Your task to perform on an android device: Go to calendar. Show me events next week Image 0: 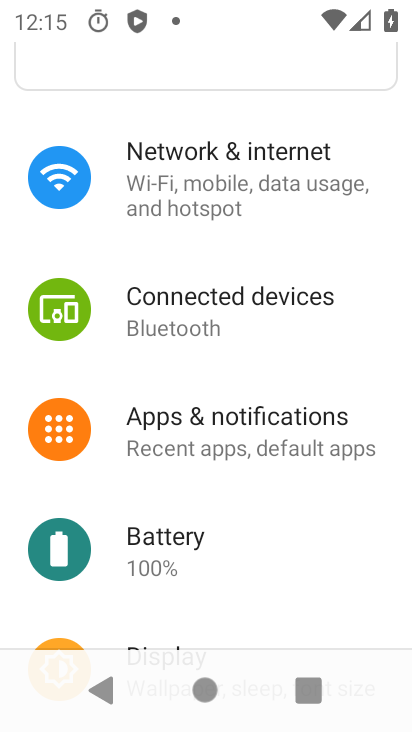
Step 0: press home button
Your task to perform on an android device: Go to calendar. Show me events next week Image 1: 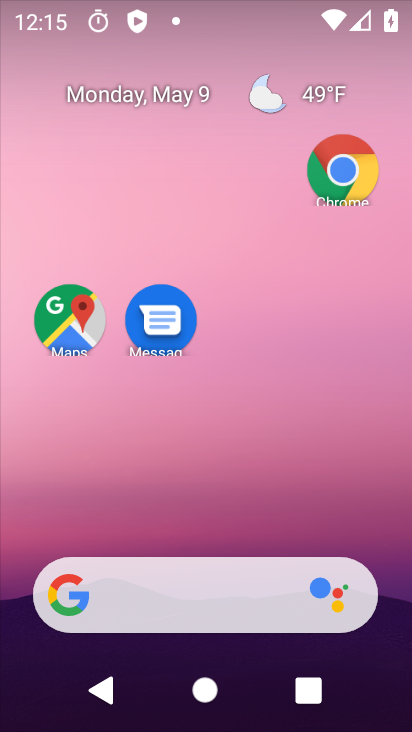
Step 1: drag from (214, 494) to (237, 144)
Your task to perform on an android device: Go to calendar. Show me events next week Image 2: 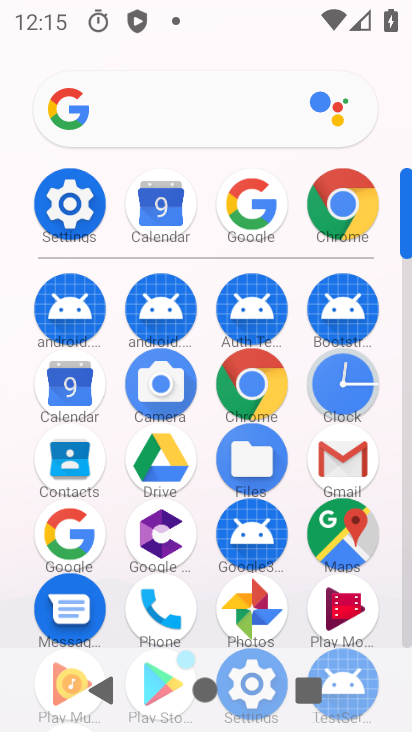
Step 2: press home button
Your task to perform on an android device: Go to calendar. Show me events next week Image 3: 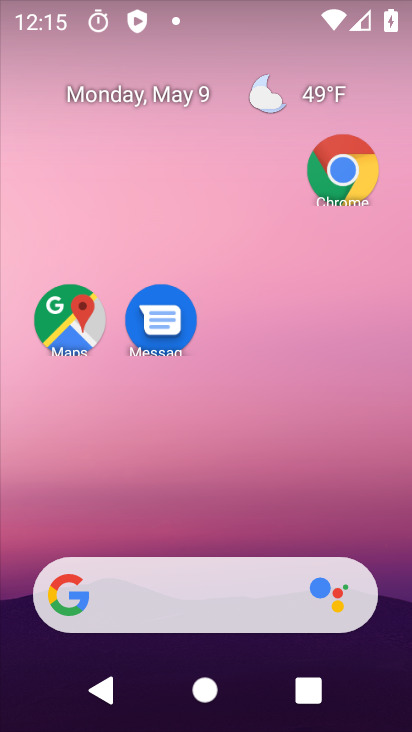
Step 3: click (171, 80)
Your task to perform on an android device: Go to calendar. Show me events next week Image 4: 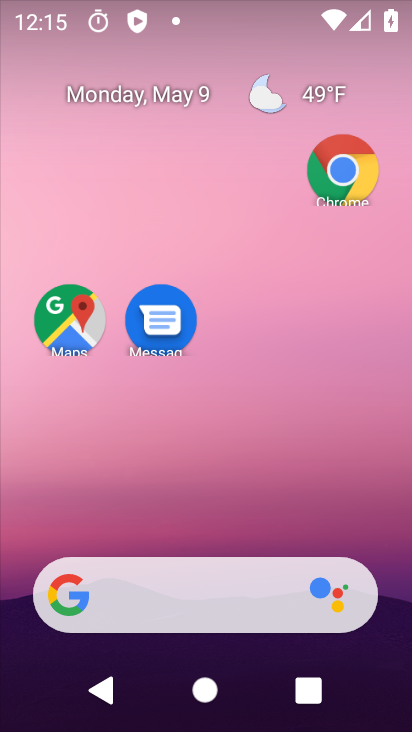
Step 4: click (183, 76)
Your task to perform on an android device: Go to calendar. Show me events next week Image 5: 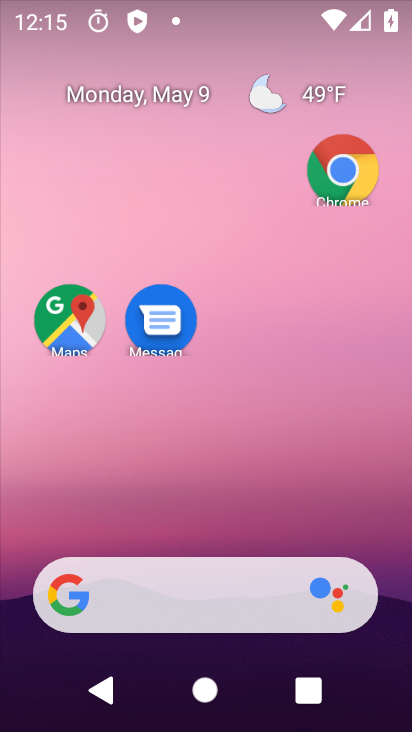
Step 5: click (173, 97)
Your task to perform on an android device: Go to calendar. Show me events next week Image 6: 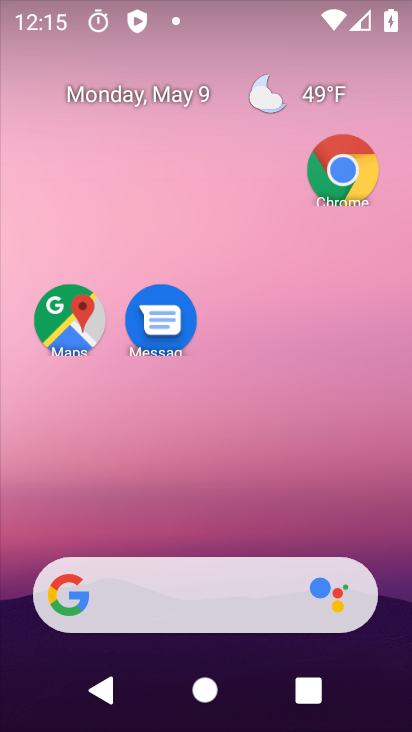
Step 6: click (188, 83)
Your task to perform on an android device: Go to calendar. Show me events next week Image 7: 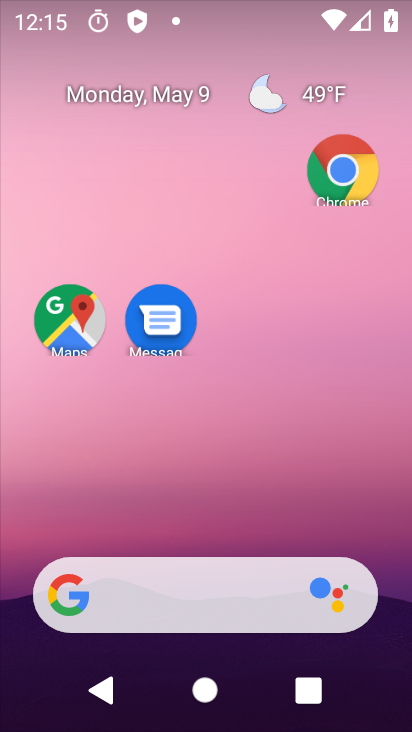
Step 7: click (188, 83)
Your task to perform on an android device: Go to calendar. Show me events next week Image 8: 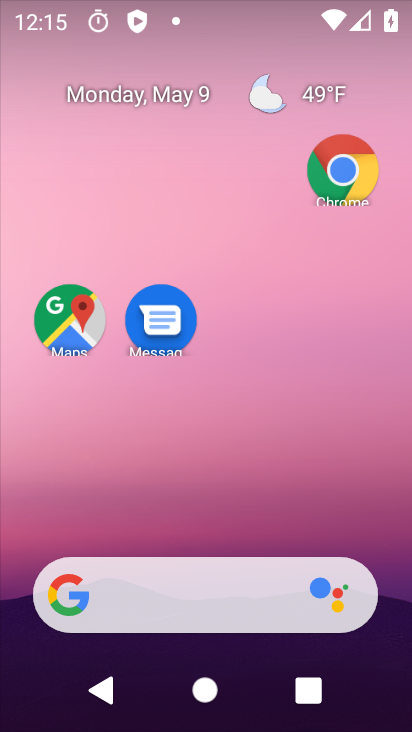
Step 8: click (188, 83)
Your task to perform on an android device: Go to calendar. Show me events next week Image 9: 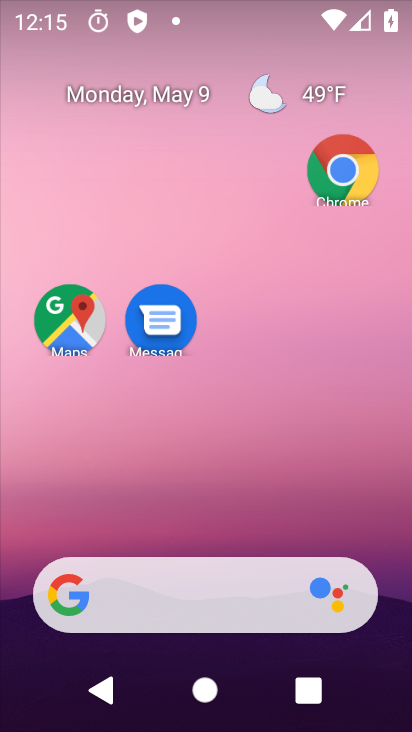
Step 9: click (168, 102)
Your task to perform on an android device: Go to calendar. Show me events next week Image 10: 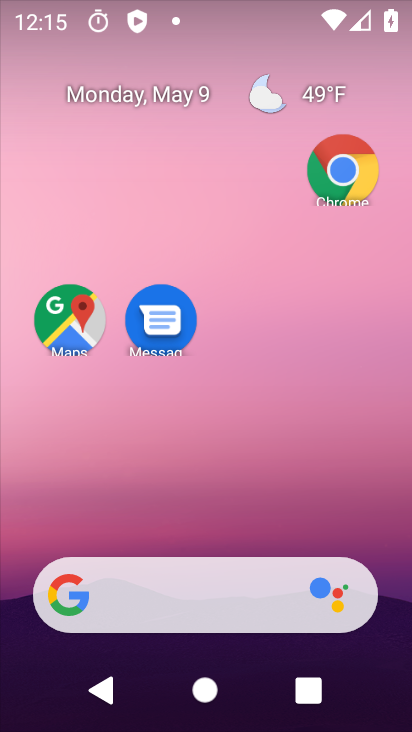
Step 10: click (168, 102)
Your task to perform on an android device: Go to calendar. Show me events next week Image 11: 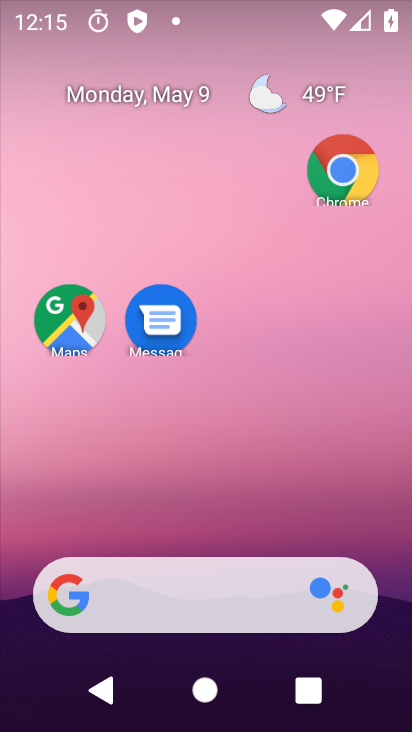
Step 11: click (168, 102)
Your task to perform on an android device: Go to calendar. Show me events next week Image 12: 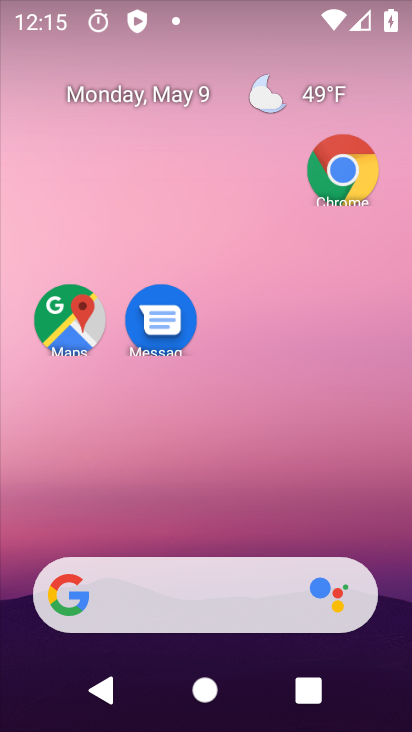
Step 12: click (166, 94)
Your task to perform on an android device: Go to calendar. Show me events next week Image 13: 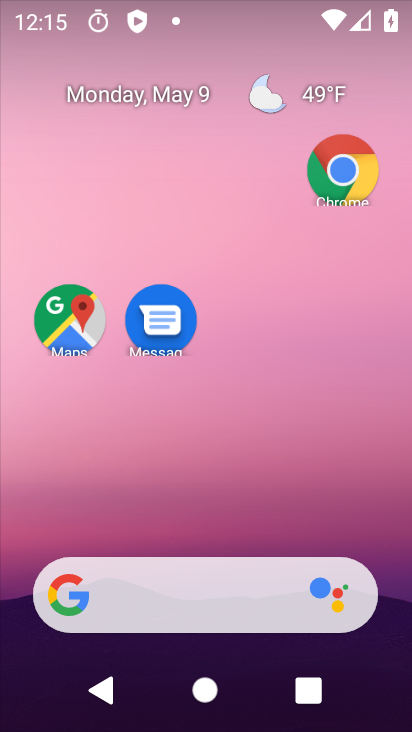
Step 13: click (166, 94)
Your task to perform on an android device: Go to calendar. Show me events next week Image 14: 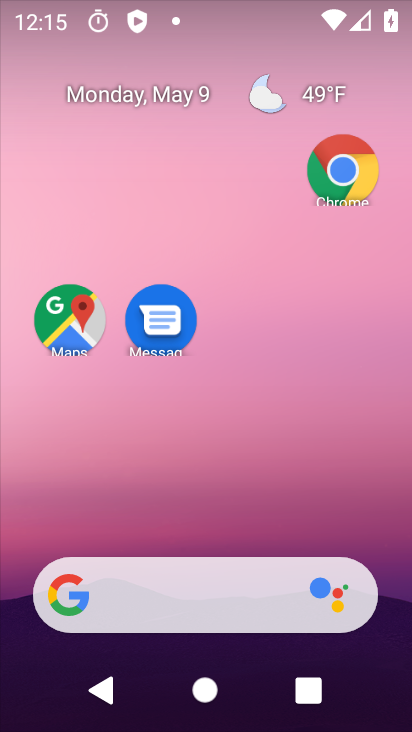
Step 14: click (166, 94)
Your task to perform on an android device: Go to calendar. Show me events next week Image 15: 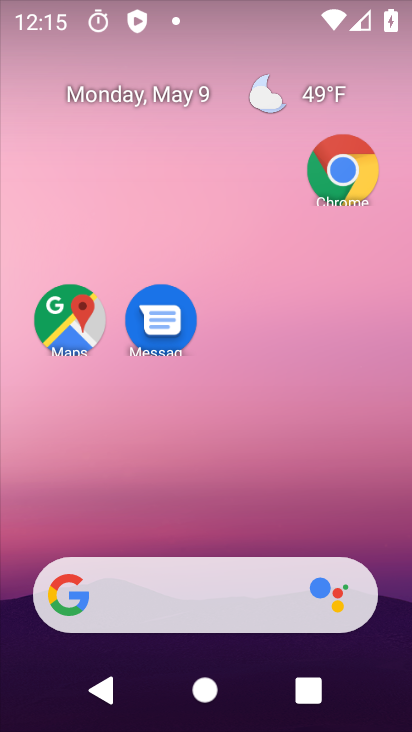
Step 15: click (166, 94)
Your task to perform on an android device: Go to calendar. Show me events next week Image 16: 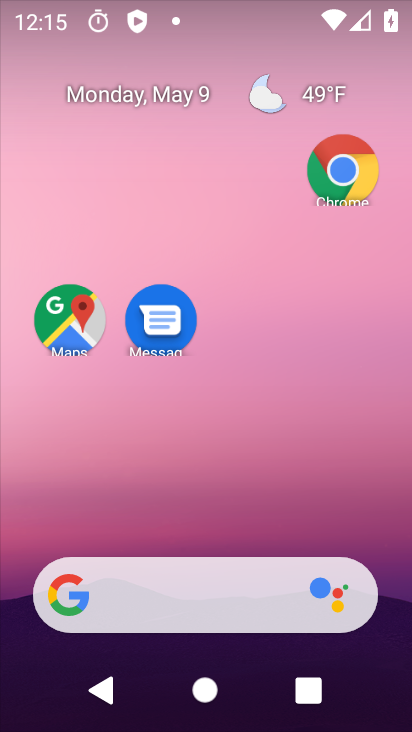
Step 16: click (166, 94)
Your task to perform on an android device: Go to calendar. Show me events next week Image 17: 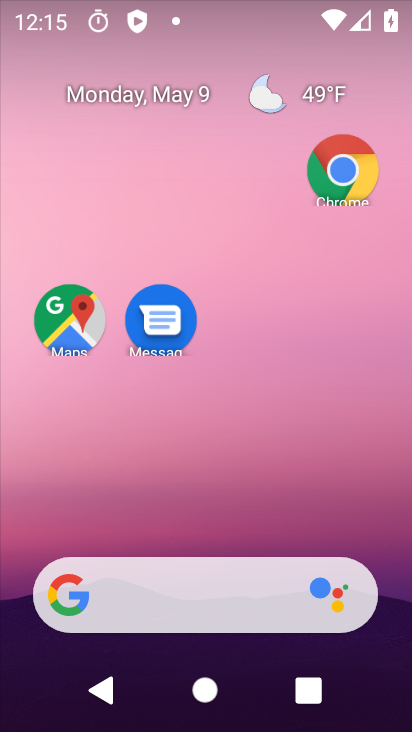
Step 17: click (166, 94)
Your task to perform on an android device: Go to calendar. Show me events next week Image 18: 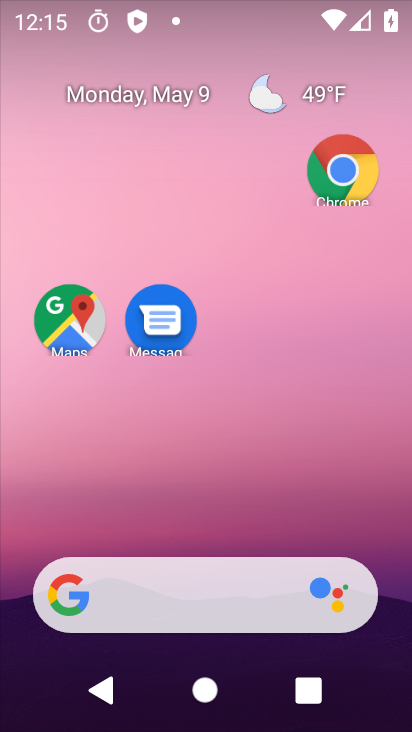
Step 18: click (166, 94)
Your task to perform on an android device: Go to calendar. Show me events next week Image 19: 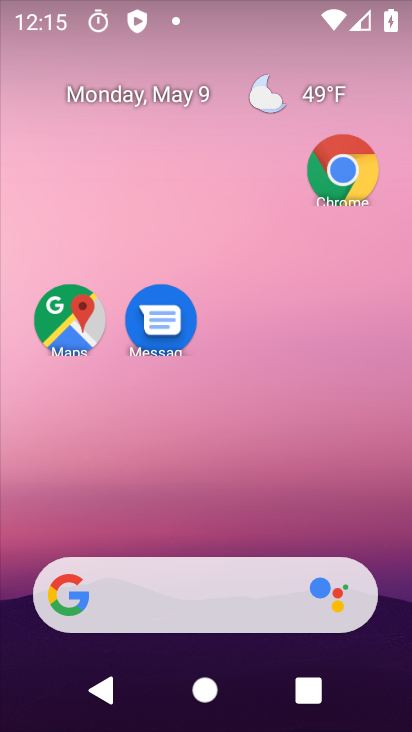
Step 19: click (166, 94)
Your task to perform on an android device: Go to calendar. Show me events next week Image 20: 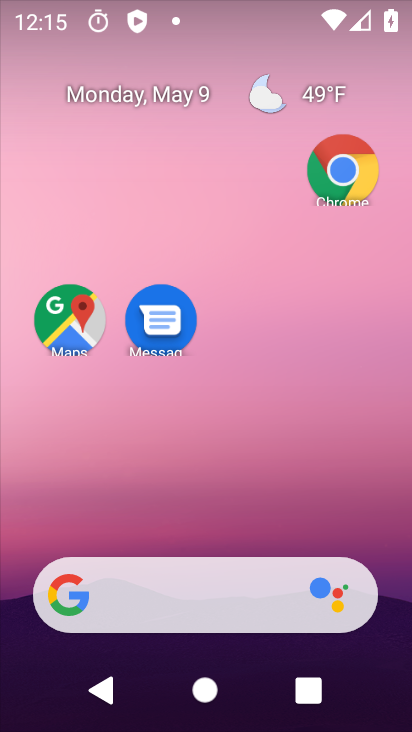
Step 20: click (166, 94)
Your task to perform on an android device: Go to calendar. Show me events next week Image 21: 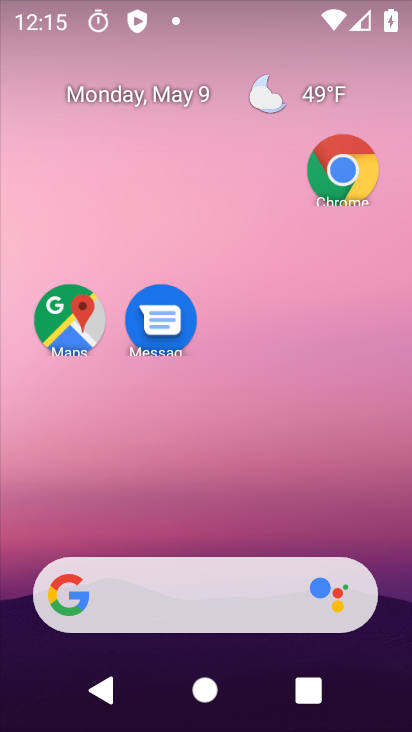
Step 21: click (166, 94)
Your task to perform on an android device: Go to calendar. Show me events next week Image 22: 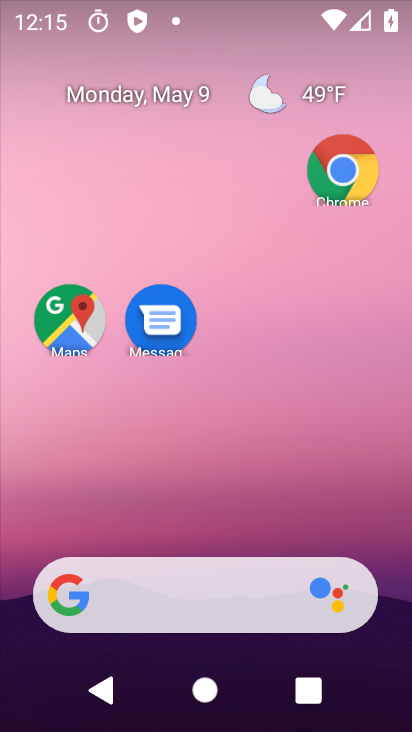
Step 22: click (166, 94)
Your task to perform on an android device: Go to calendar. Show me events next week Image 23: 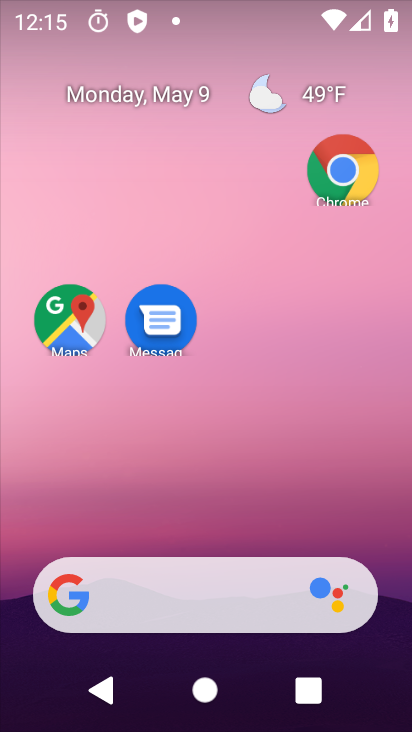
Step 23: click (159, 99)
Your task to perform on an android device: Go to calendar. Show me events next week Image 24: 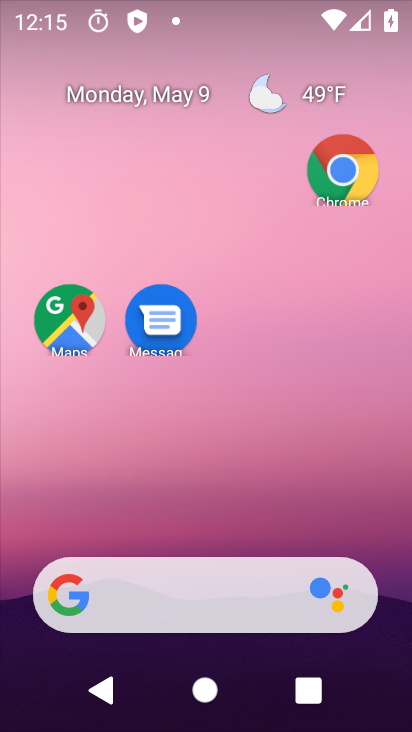
Step 24: click (159, 99)
Your task to perform on an android device: Go to calendar. Show me events next week Image 25: 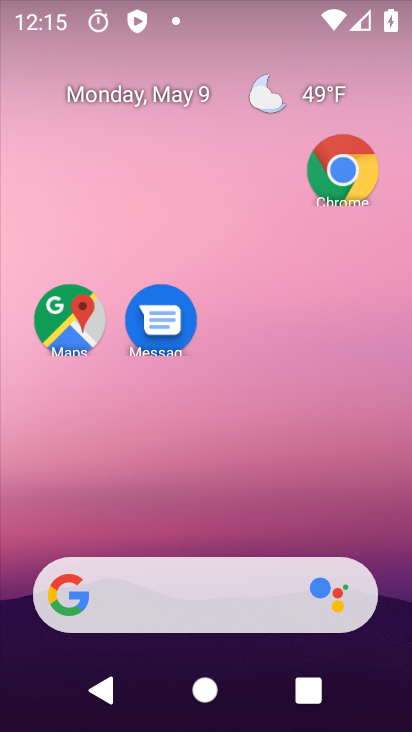
Step 25: click (159, 99)
Your task to perform on an android device: Go to calendar. Show me events next week Image 26: 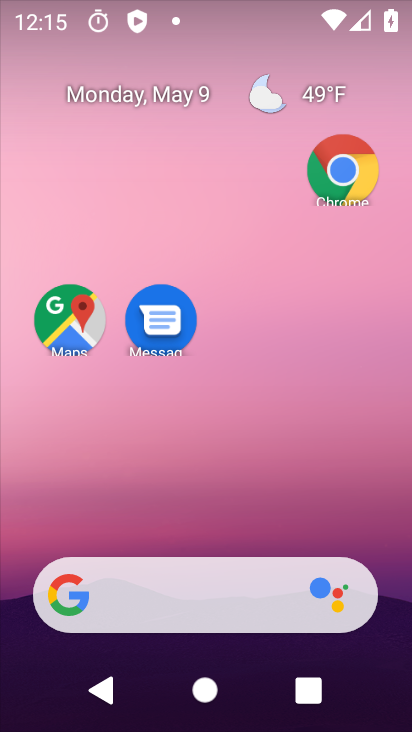
Step 26: click (159, 99)
Your task to perform on an android device: Go to calendar. Show me events next week Image 27: 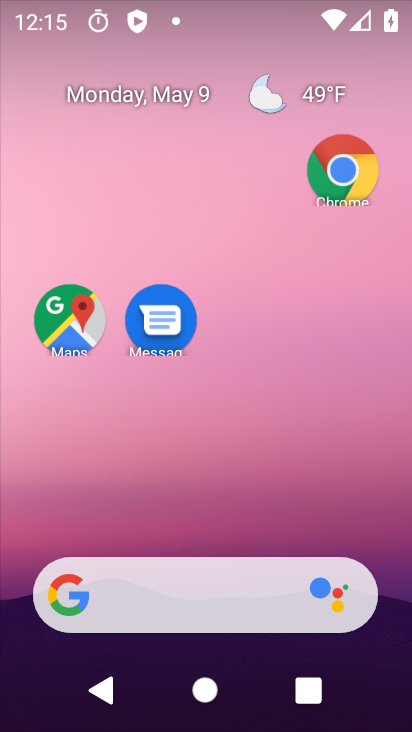
Step 27: click (159, 99)
Your task to perform on an android device: Go to calendar. Show me events next week Image 28: 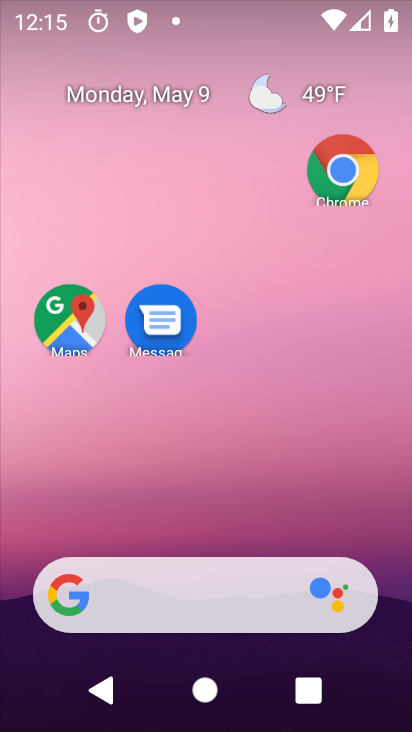
Step 28: click (159, 99)
Your task to perform on an android device: Go to calendar. Show me events next week Image 29: 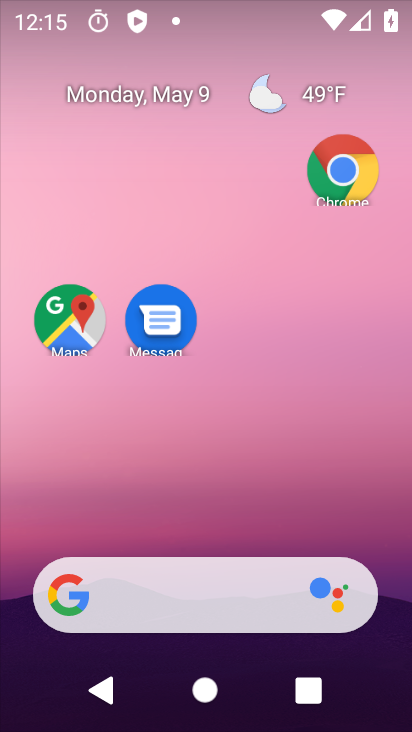
Step 29: click (159, 99)
Your task to perform on an android device: Go to calendar. Show me events next week Image 30: 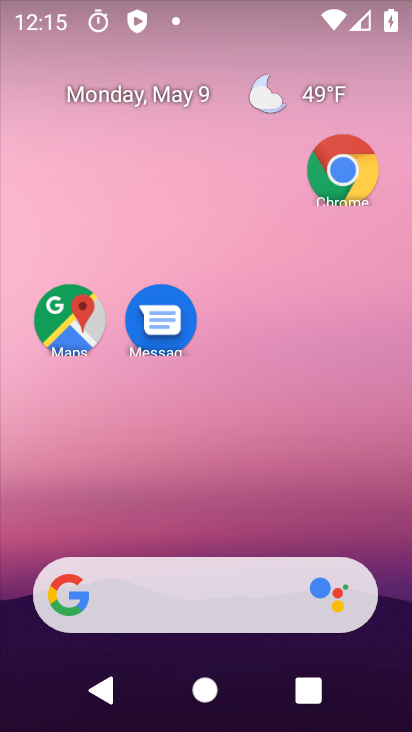
Step 30: click (159, 99)
Your task to perform on an android device: Go to calendar. Show me events next week Image 31: 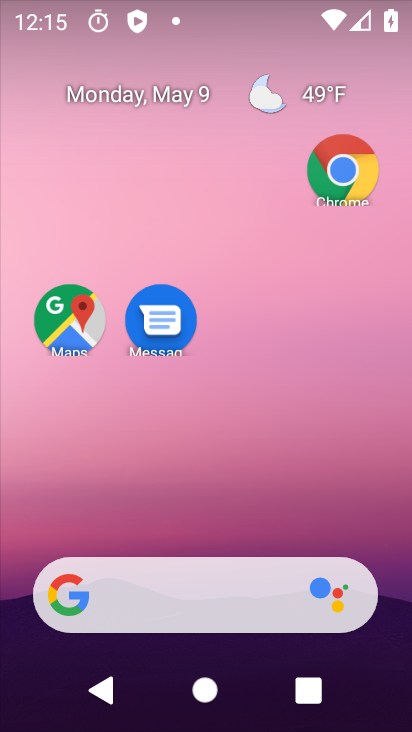
Step 31: click (159, 99)
Your task to perform on an android device: Go to calendar. Show me events next week Image 32: 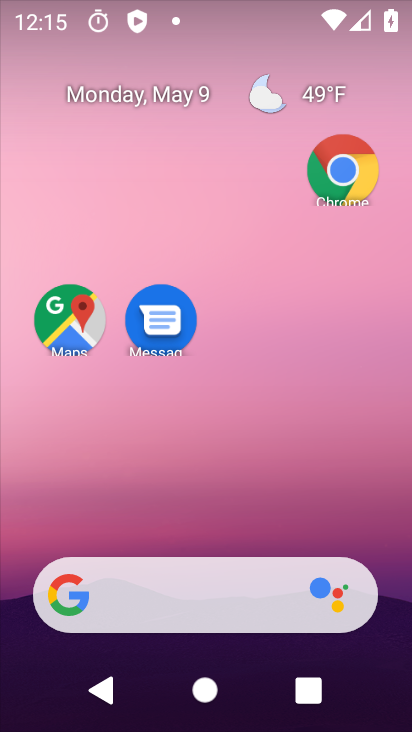
Step 32: click (159, 99)
Your task to perform on an android device: Go to calendar. Show me events next week Image 33: 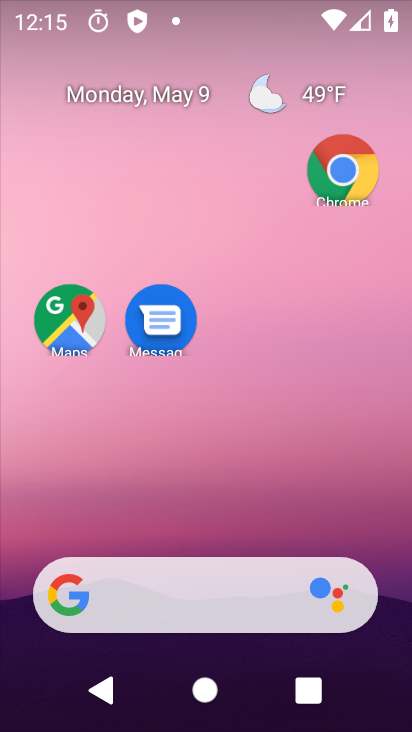
Step 33: click (159, 99)
Your task to perform on an android device: Go to calendar. Show me events next week Image 34: 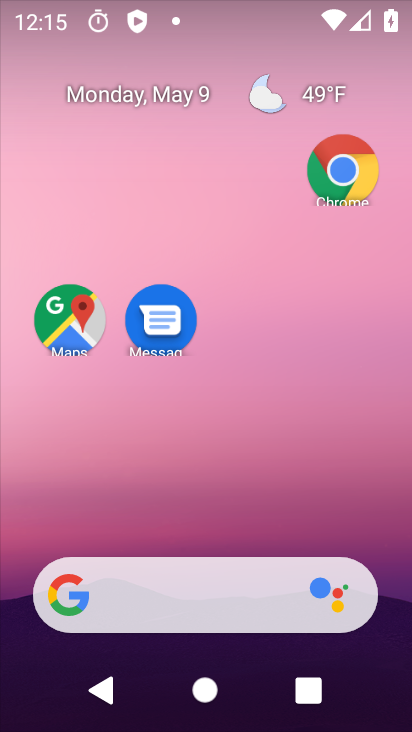
Step 34: click (210, 93)
Your task to perform on an android device: Go to calendar. Show me events next week Image 35: 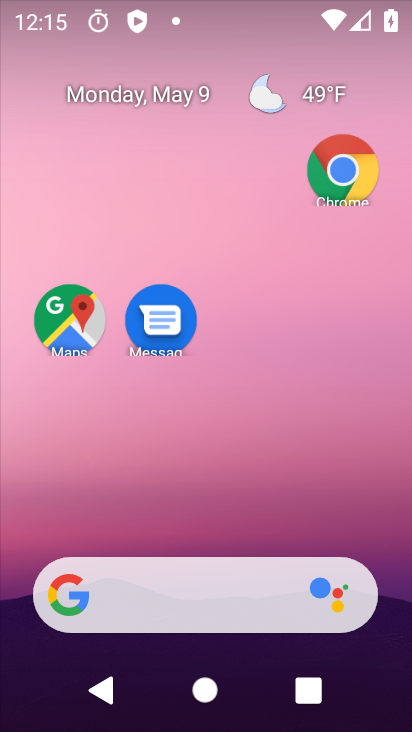
Step 35: drag from (264, 395) to (298, 7)
Your task to perform on an android device: Go to calendar. Show me events next week Image 36: 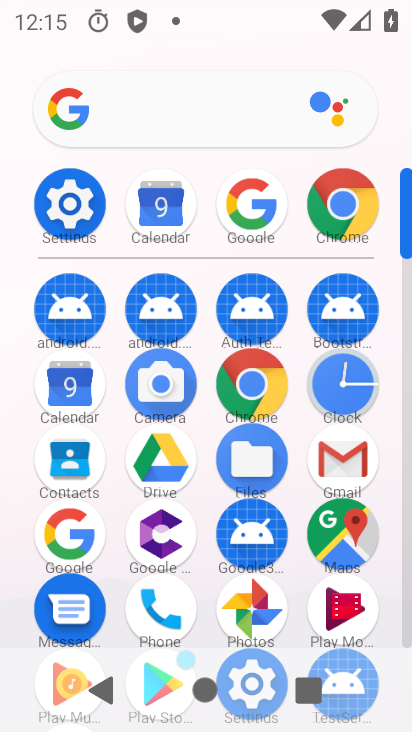
Step 36: click (176, 202)
Your task to perform on an android device: Go to calendar. Show me events next week Image 37: 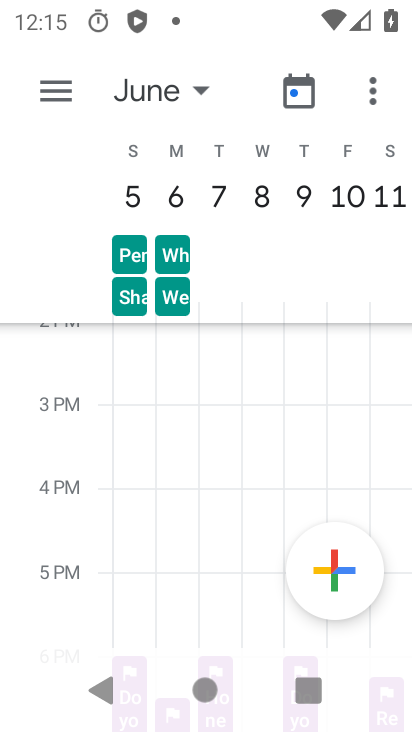
Step 37: click (46, 79)
Your task to perform on an android device: Go to calendar. Show me events next week Image 38: 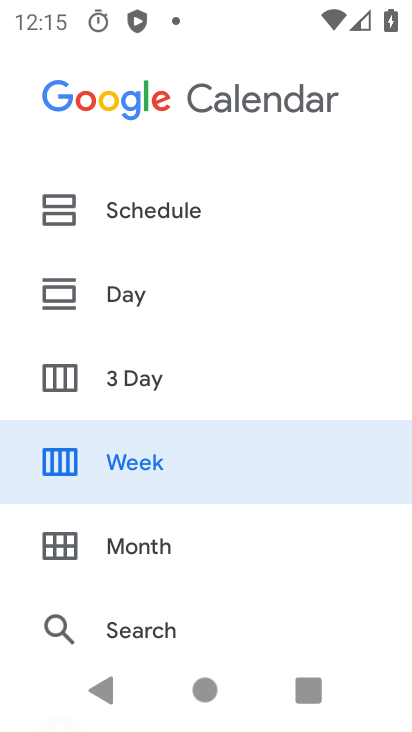
Step 38: drag from (199, 586) to (187, 366)
Your task to perform on an android device: Go to calendar. Show me events next week Image 39: 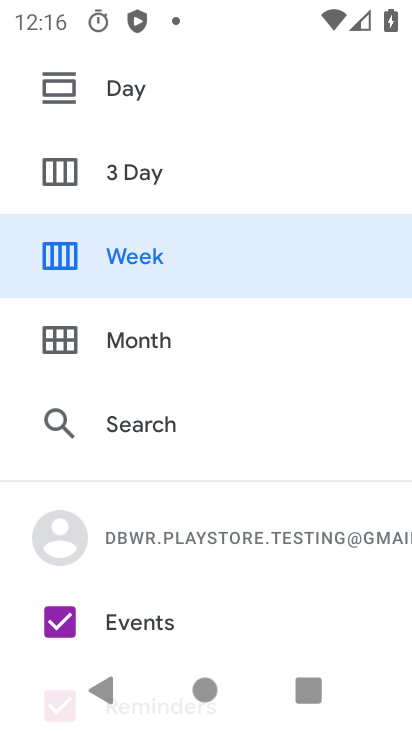
Step 39: click (161, 615)
Your task to perform on an android device: Go to calendar. Show me events next week Image 40: 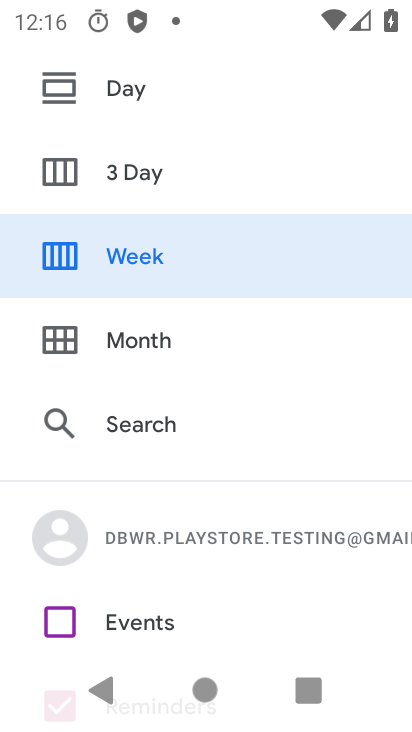
Step 40: click (159, 614)
Your task to perform on an android device: Go to calendar. Show me events next week Image 41: 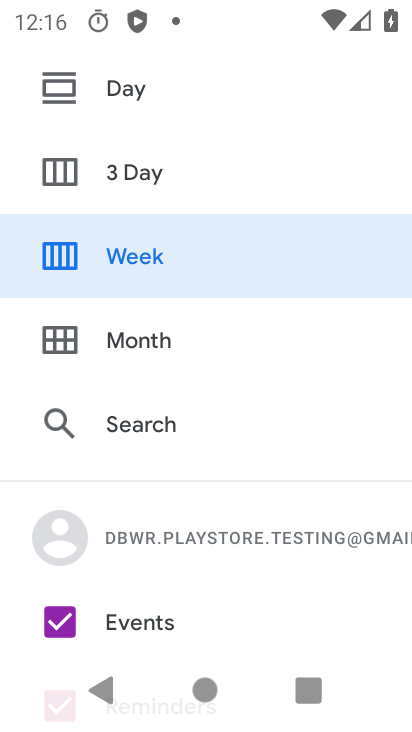
Step 41: click (152, 253)
Your task to perform on an android device: Go to calendar. Show me events next week Image 42: 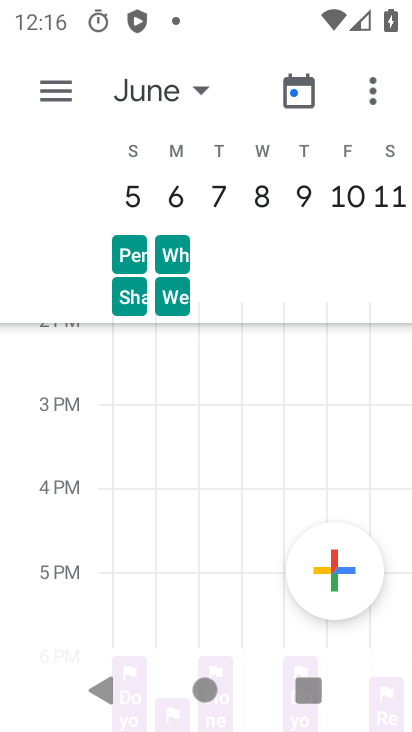
Step 42: task complete